Your task to perform on an android device: Open battery settings Image 0: 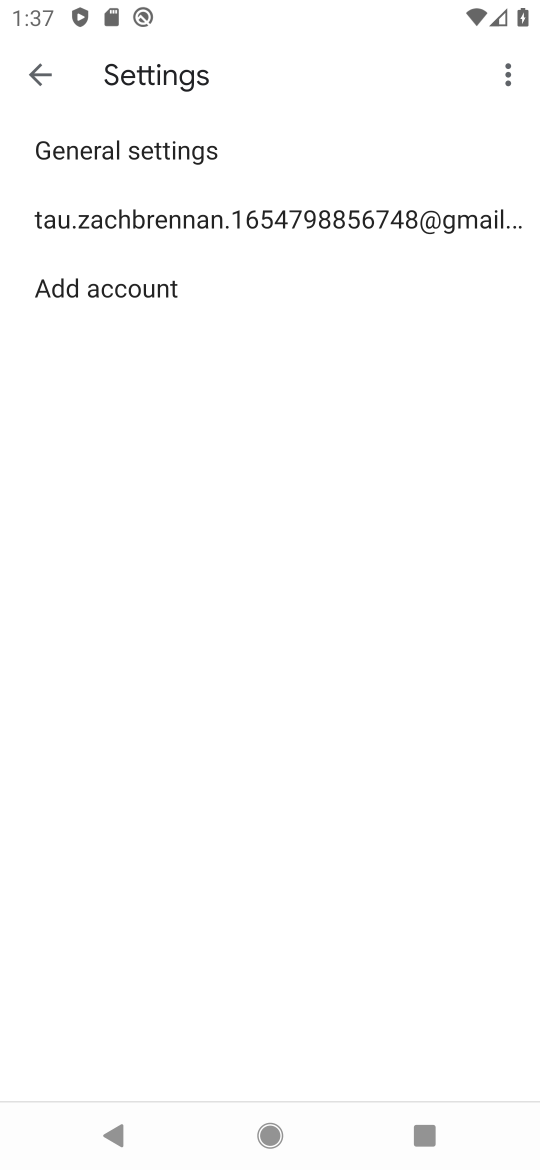
Step 0: press home button
Your task to perform on an android device: Open battery settings Image 1: 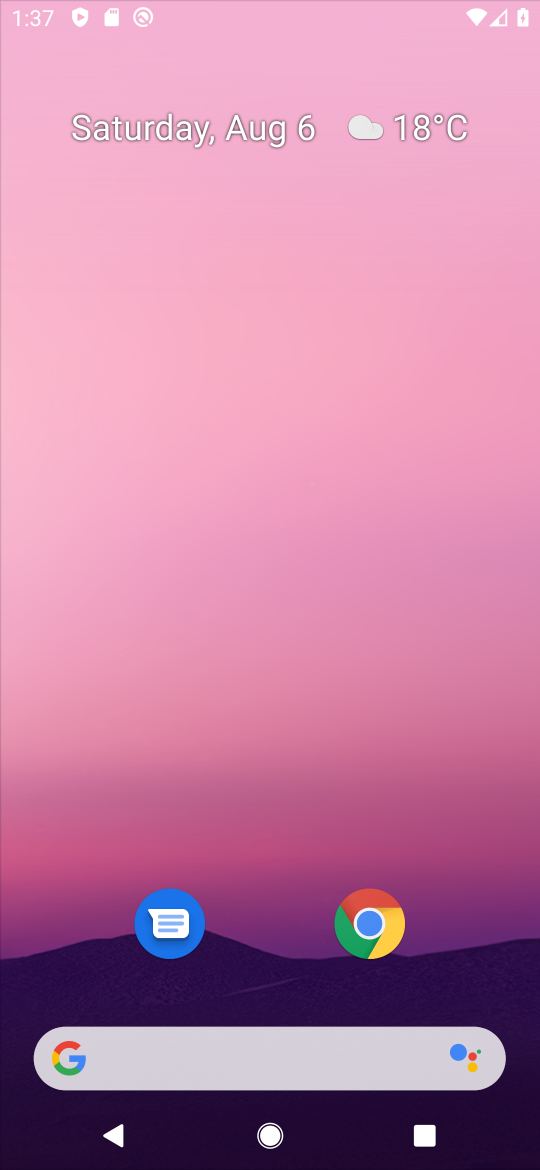
Step 1: drag from (312, 893) to (393, 184)
Your task to perform on an android device: Open battery settings Image 2: 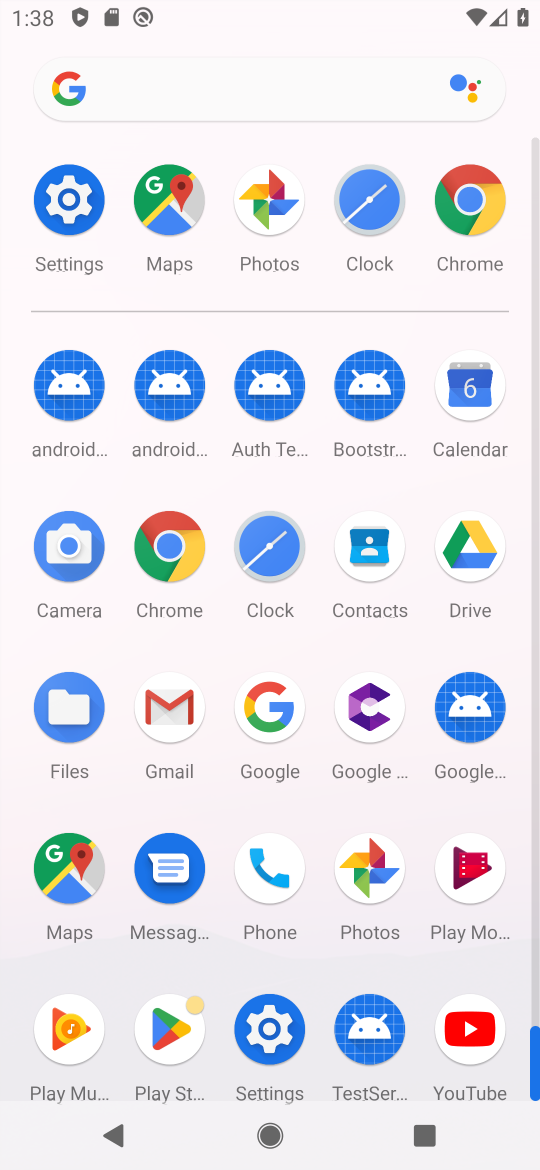
Step 2: click (276, 1044)
Your task to perform on an android device: Open battery settings Image 3: 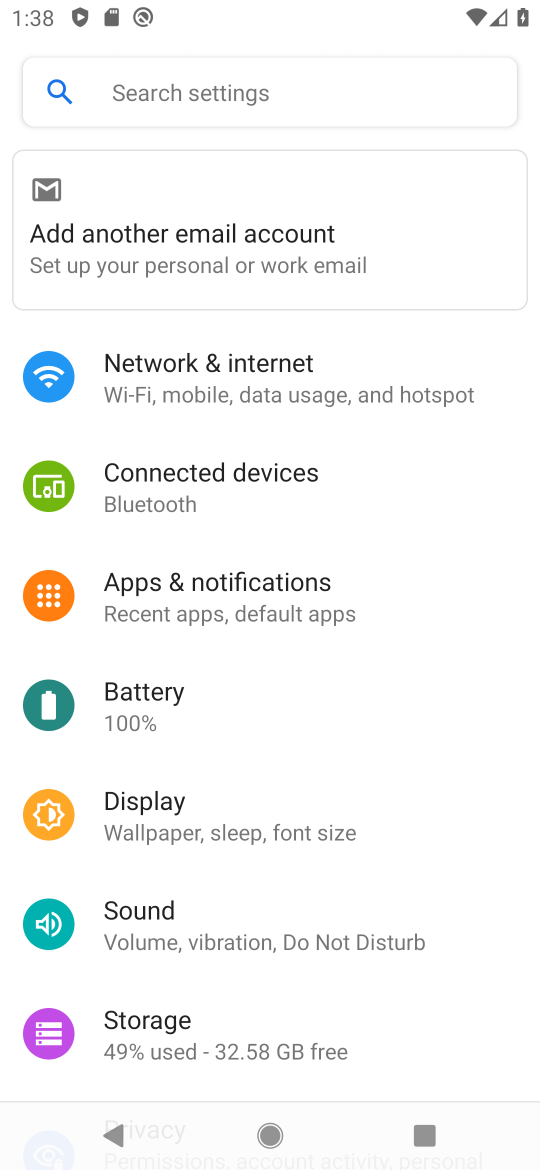
Step 3: drag from (284, 650) to (289, 585)
Your task to perform on an android device: Open battery settings Image 4: 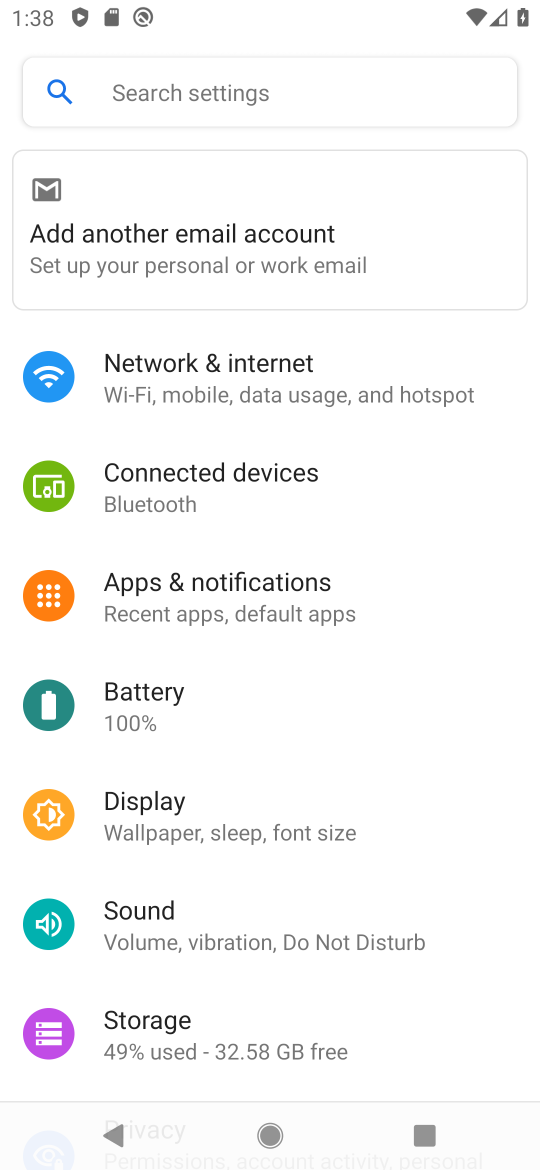
Step 4: drag from (244, 867) to (331, 246)
Your task to perform on an android device: Open battery settings Image 5: 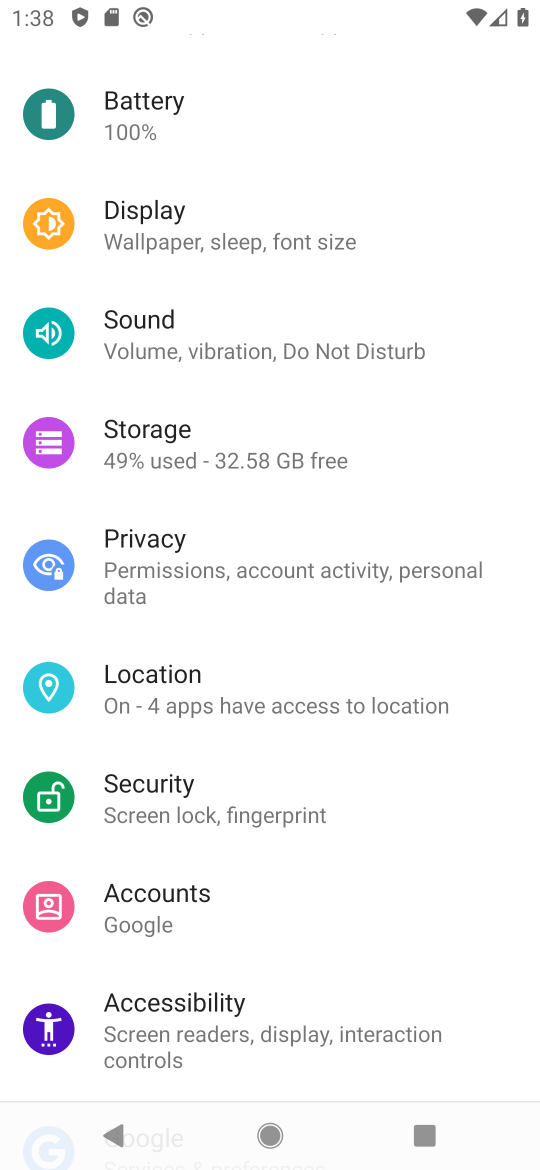
Step 5: click (151, 103)
Your task to perform on an android device: Open battery settings Image 6: 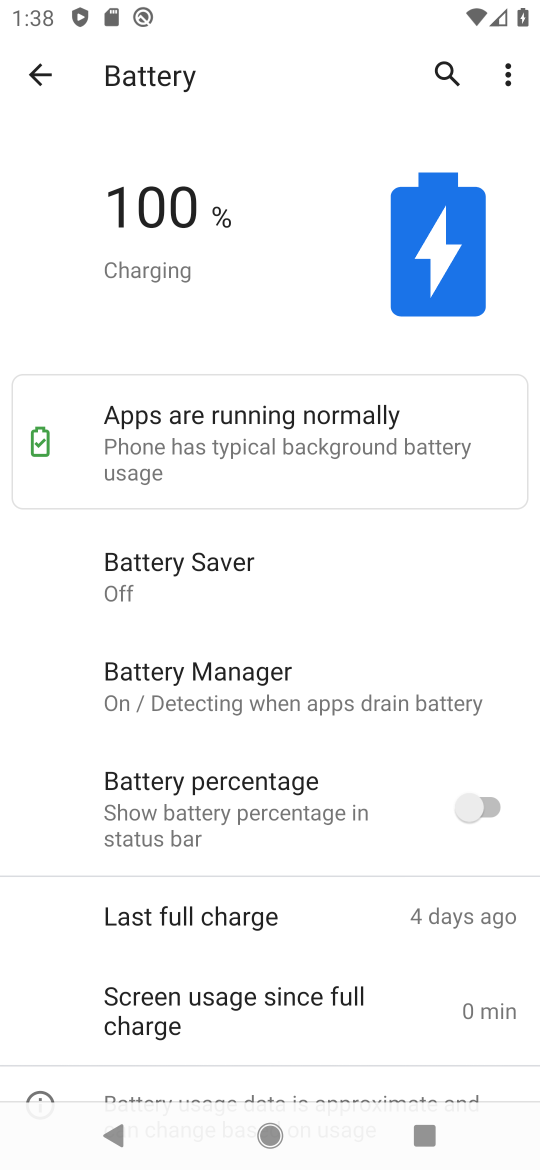
Step 6: task complete